Your task to perform on an android device: install app "Google Photos" Image 0: 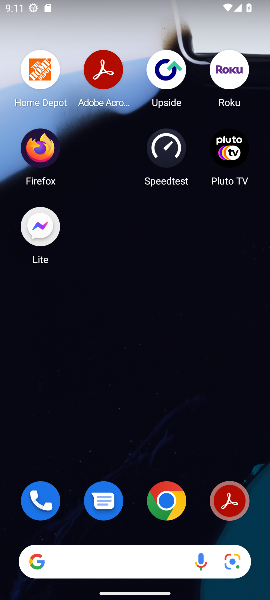
Step 0: click (34, 17)
Your task to perform on an android device: install app "Google Photos" Image 1: 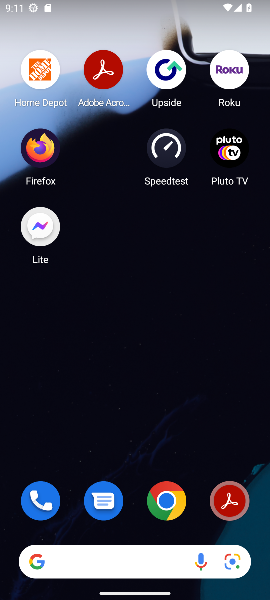
Step 1: drag from (120, 515) to (158, 73)
Your task to perform on an android device: install app "Google Photos" Image 2: 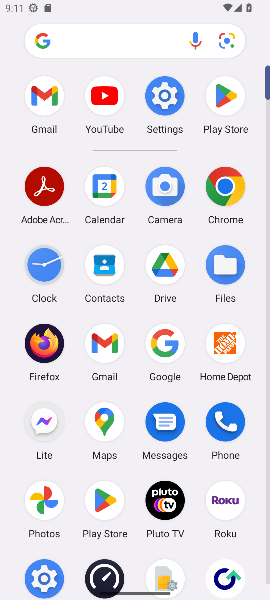
Step 2: click (209, 101)
Your task to perform on an android device: install app "Google Photos" Image 3: 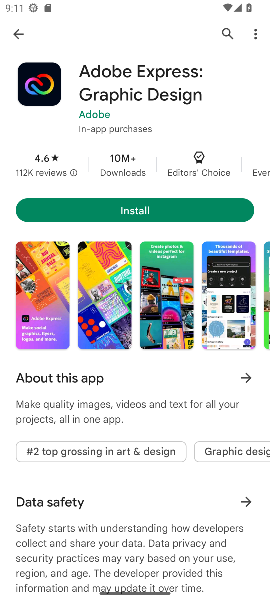
Step 3: click (224, 41)
Your task to perform on an android device: install app "Google Photos" Image 4: 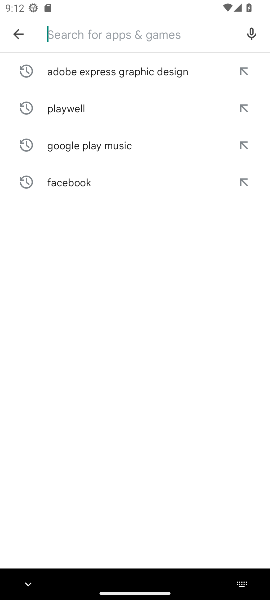
Step 4: type "Google Photos"
Your task to perform on an android device: install app "Google Photos" Image 5: 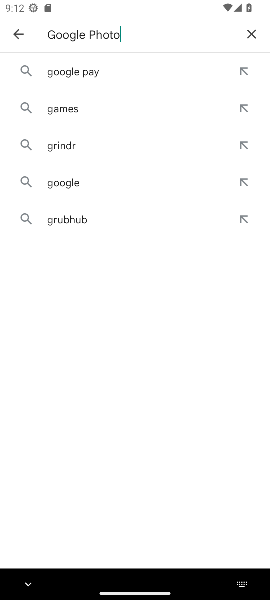
Step 5: type ""
Your task to perform on an android device: install app "Google Photos" Image 6: 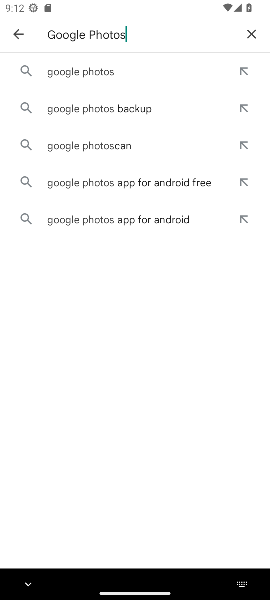
Step 6: click (78, 72)
Your task to perform on an android device: install app "Google Photos" Image 7: 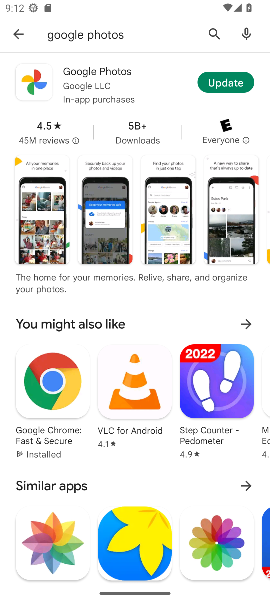
Step 7: click (111, 81)
Your task to perform on an android device: install app "Google Photos" Image 8: 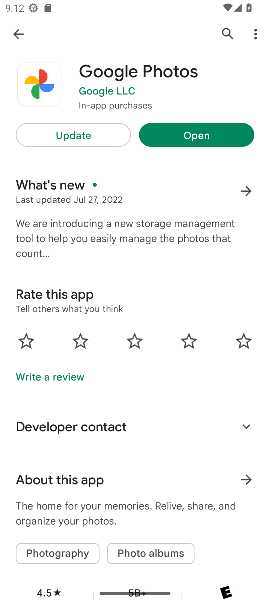
Step 8: task complete